Your task to perform on an android device: Open internet settings Image 0: 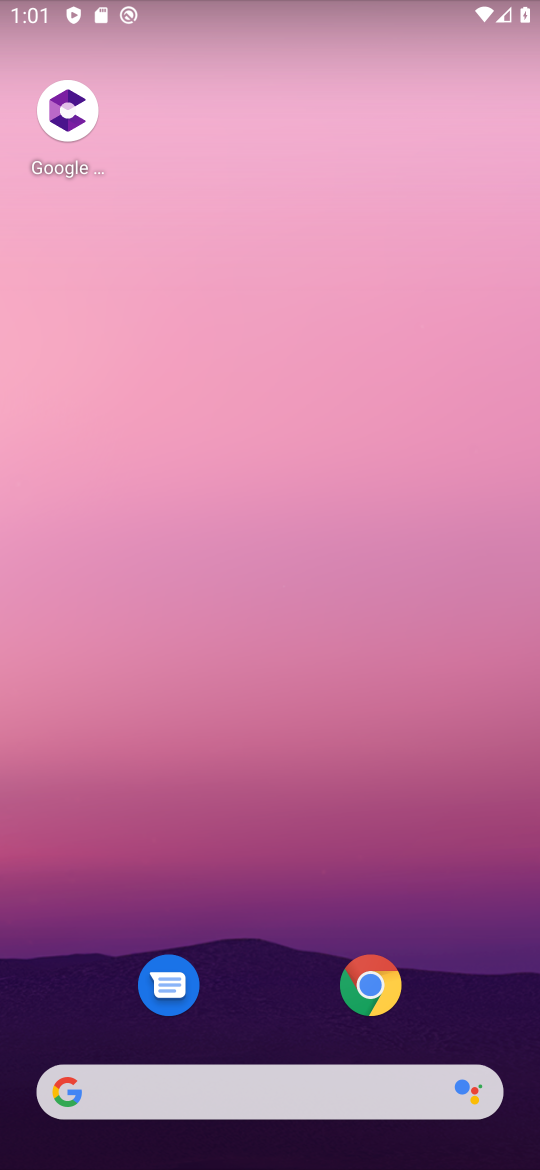
Step 0: drag from (268, 1027) to (249, 163)
Your task to perform on an android device: Open internet settings Image 1: 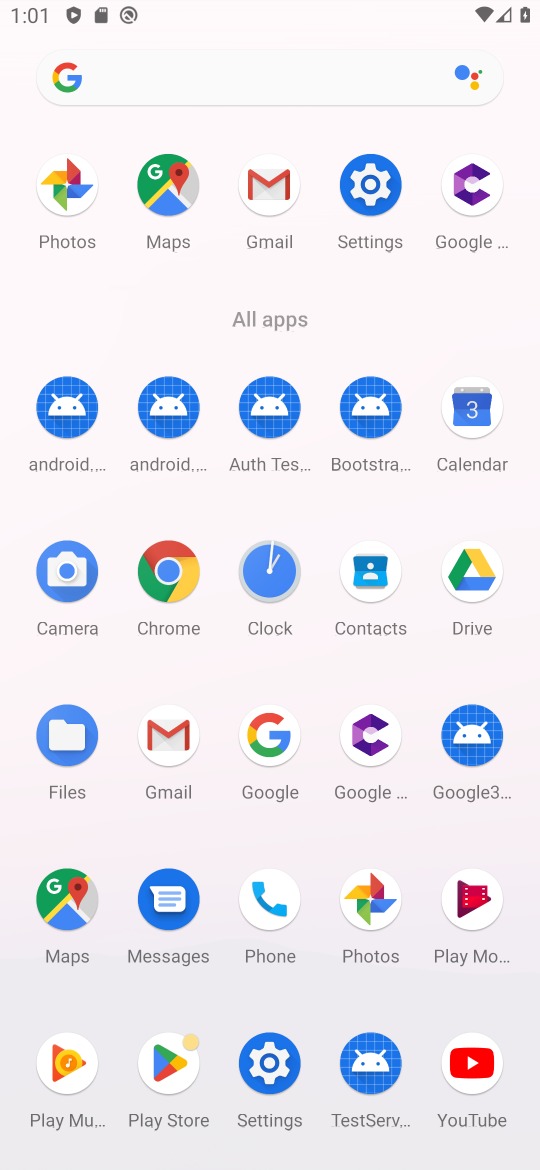
Step 1: click (368, 183)
Your task to perform on an android device: Open internet settings Image 2: 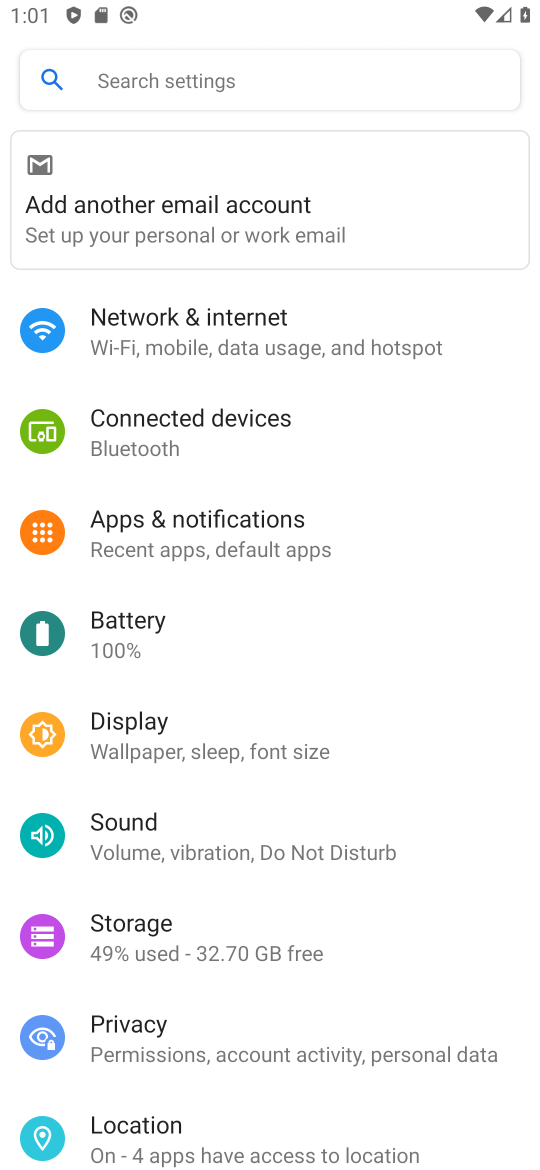
Step 2: click (213, 325)
Your task to perform on an android device: Open internet settings Image 3: 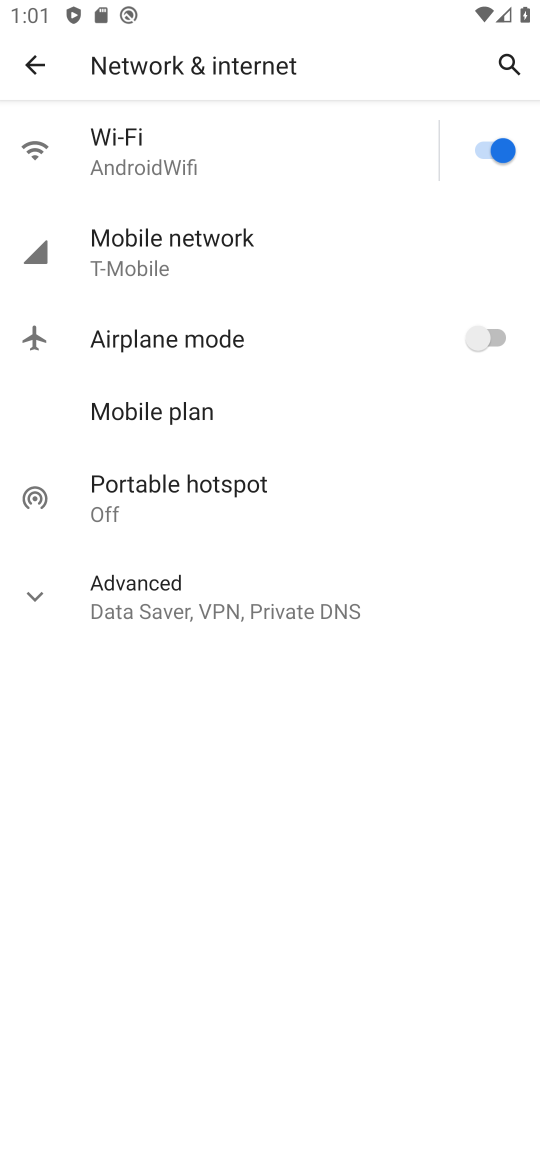
Step 3: click (47, 590)
Your task to perform on an android device: Open internet settings Image 4: 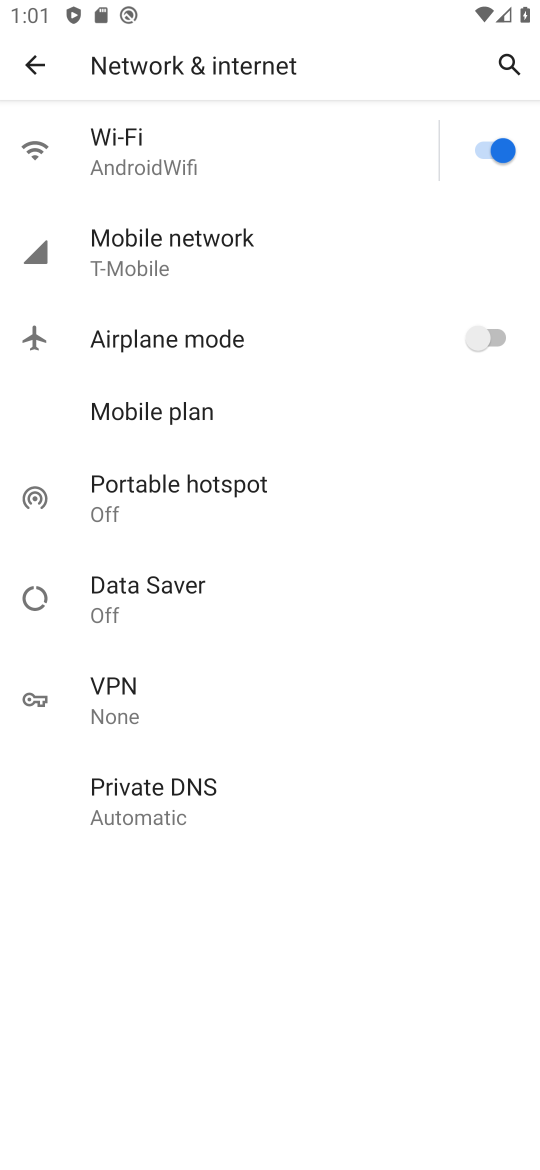
Step 4: task complete